Your task to perform on an android device: What is the recent news? Image 0: 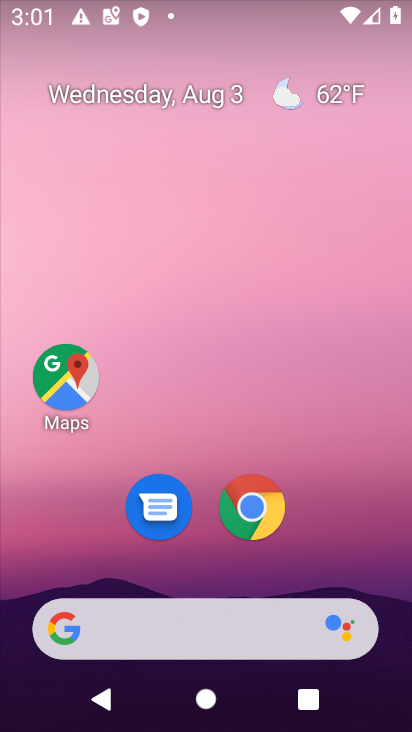
Step 0: click (265, 508)
Your task to perform on an android device: What is the recent news? Image 1: 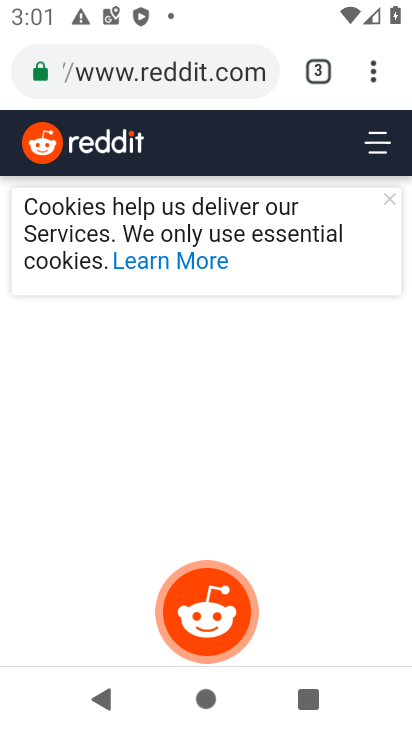
Step 1: click (317, 66)
Your task to perform on an android device: What is the recent news? Image 2: 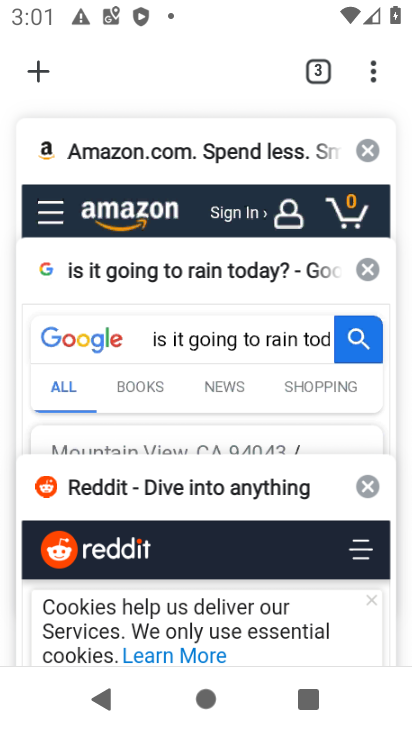
Step 2: click (34, 73)
Your task to perform on an android device: What is the recent news? Image 3: 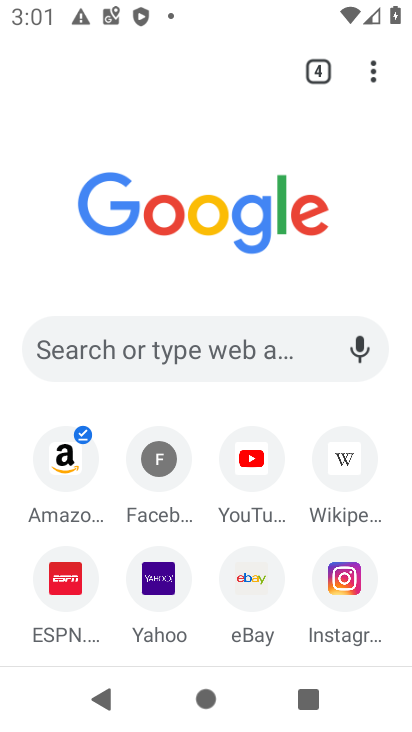
Step 3: click (132, 347)
Your task to perform on an android device: What is the recent news? Image 4: 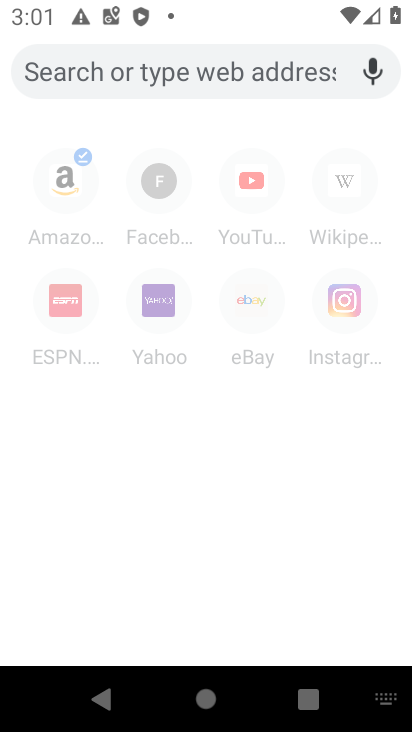
Step 4: type "What is the recent news?"
Your task to perform on an android device: What is the recent news? Image 5: 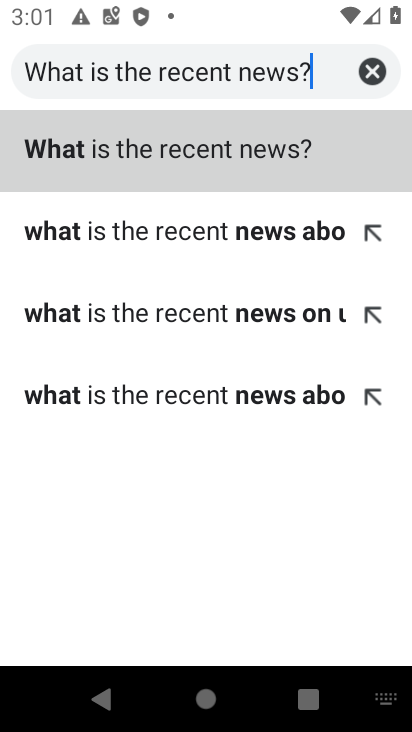
Step 5: click (236, 70)
Your task to perform on an android device: What is the recent news? Image 6: 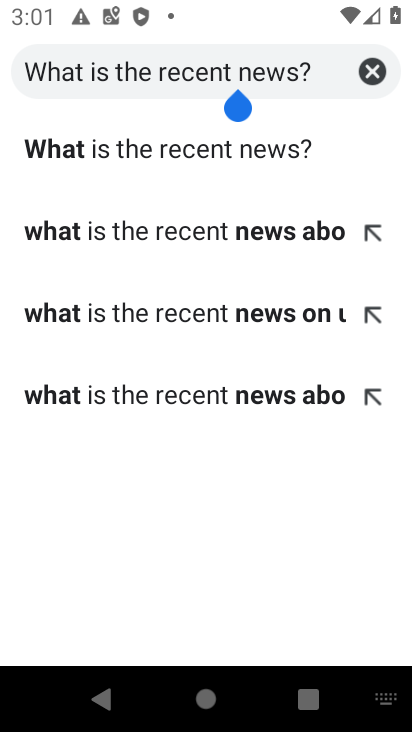
Step 6: click (248, 153)
Your task to perform on an android device: What is the recent news? Image 7: 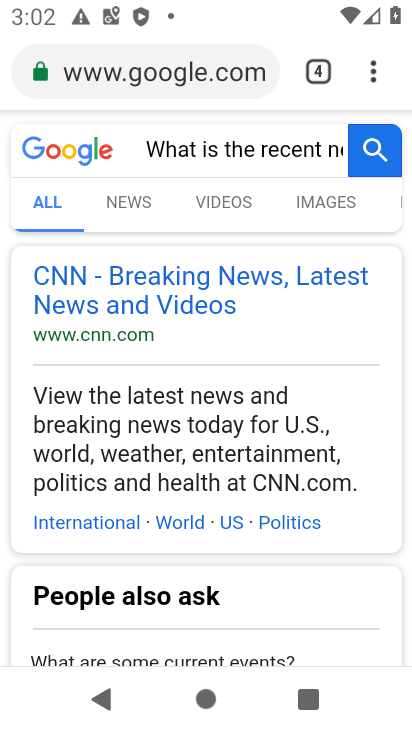
Step 7: click (132, 200)
Your task to perform on an android device: What is the recent news? Image 8: 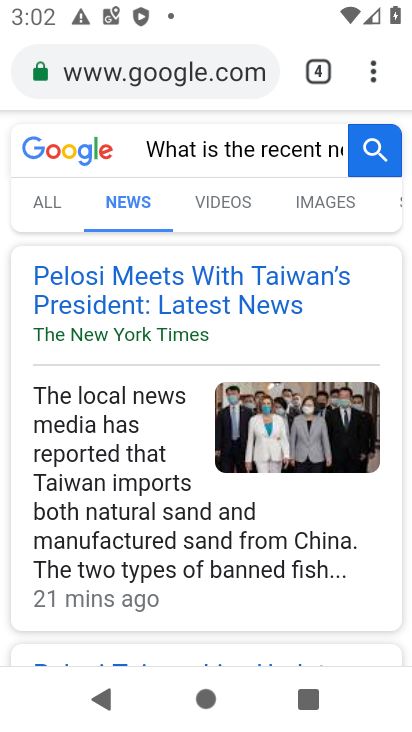
Step 8: task complete